Your task to perform on an android device: Add usb-a to usb-b to the cart on bestbuy, then select checkout. Image 0: 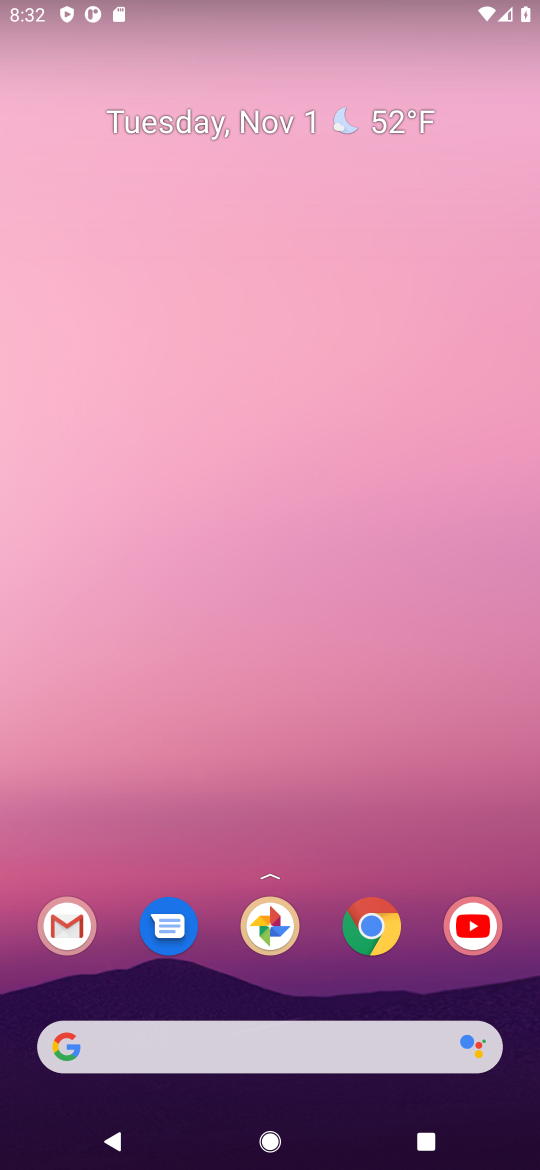
Step 0: click (384, 931)
Your task to perform on an android device: Add usb-a to usb-b to the cart on bestbuy, then select checkout. Image 1: 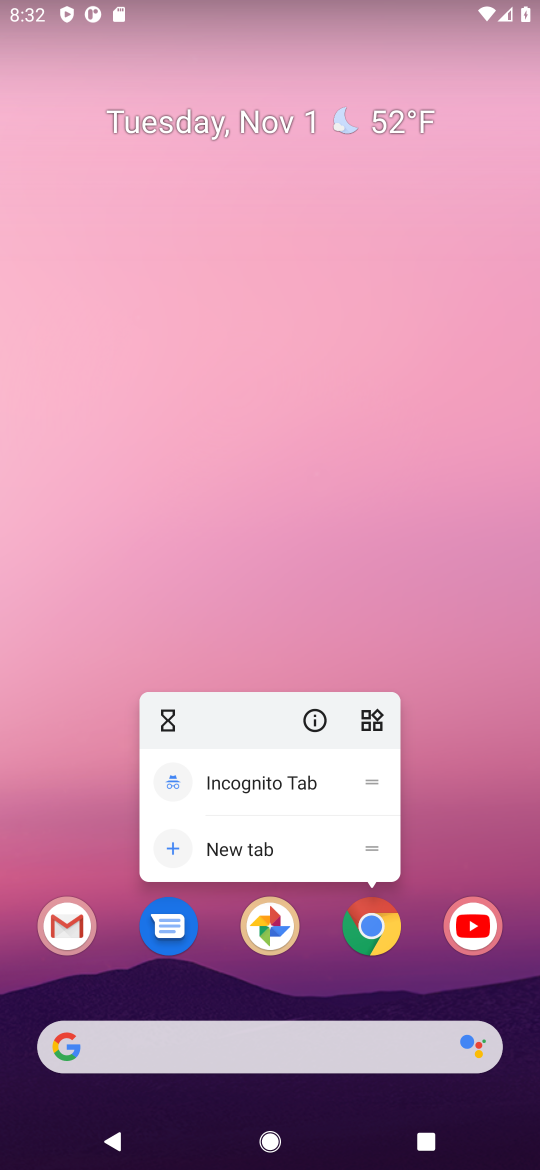
Step 1: click (381, 932)
Your task to perform on an android device: Add usb-a to usb-b to the cart on bestbuy, then select checkout. Image 2: 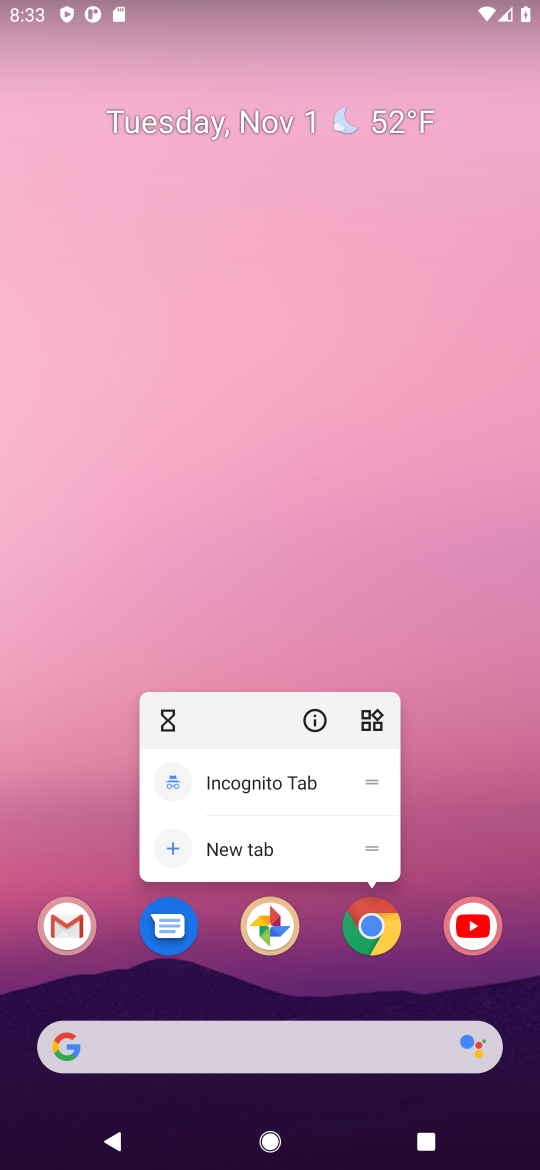
Step 2: click (370, 922)
Your task to perform on an android device: Add usb-a to usb-b to the cart on bestbuy, then select checkout. Image 3: 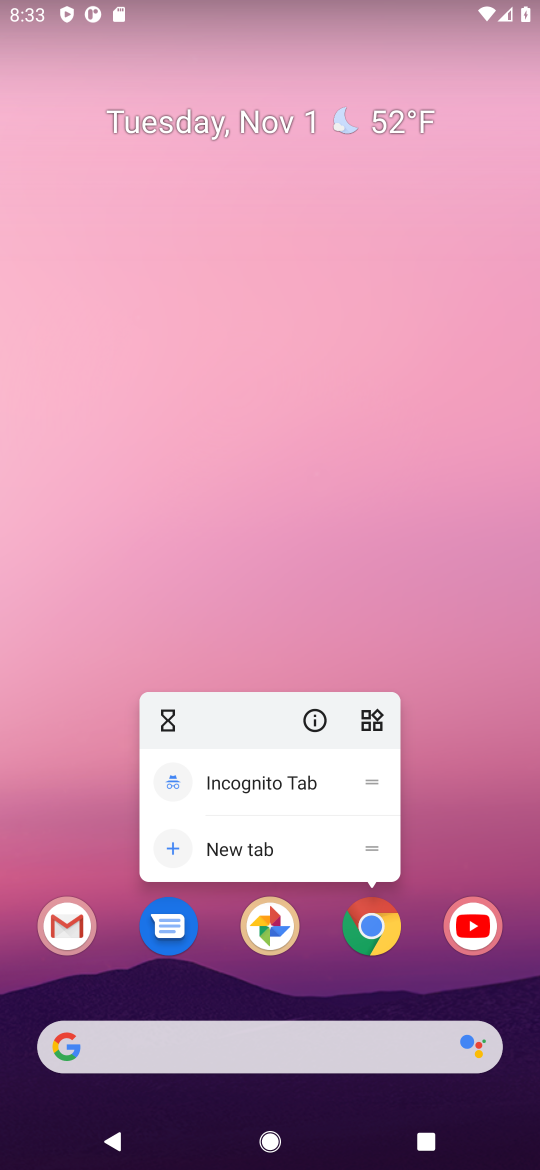
Step 3: click (363, 927)
Your task to perform on an android device: Add usb-a to usb-b to the cart on bestbuy, then select checkout. Image 4: 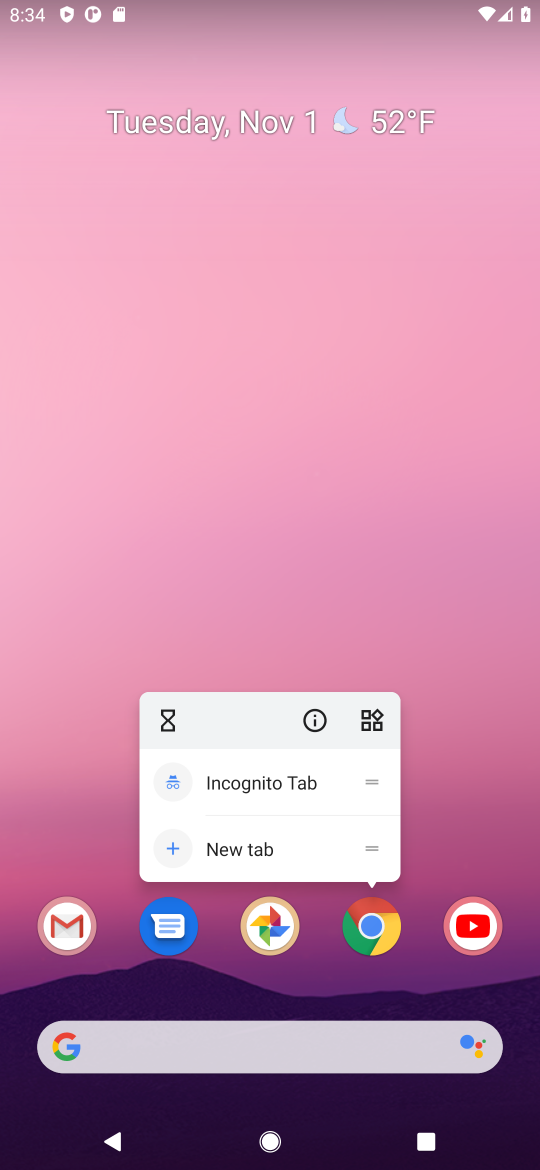
Step 4: click (372, 927)
Your task to perform on an android device: Add usb-a to usb-b to the cart on bestbuy, then select checkout. Image 5: 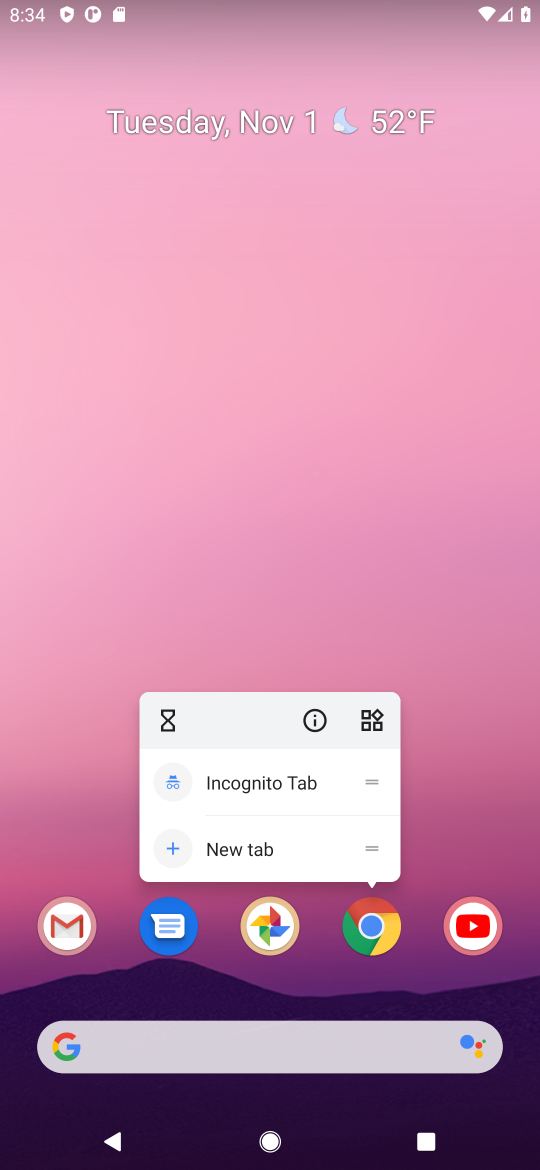
Step 5: click (380, 933)
Your task to perform on an android device: Add usb-a to usb-b to the cart on bestbuy, then select checkout. Image 6: 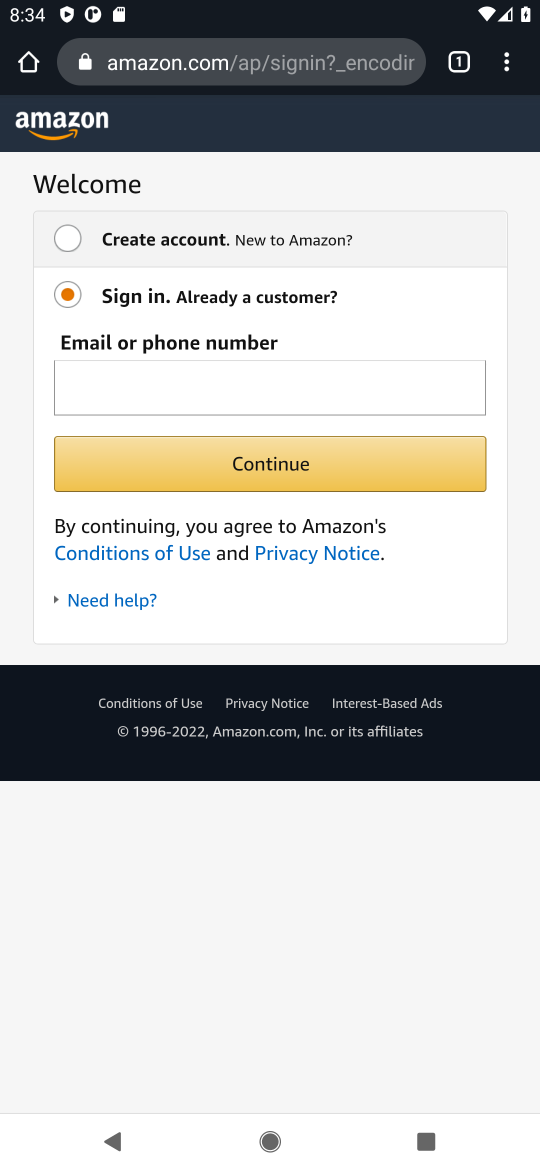
Step 6: click (241, 61)
Your task to perform on an android device: Add usb-a to usb-b to the cart on bestbuy, then select checkout. Image 7: 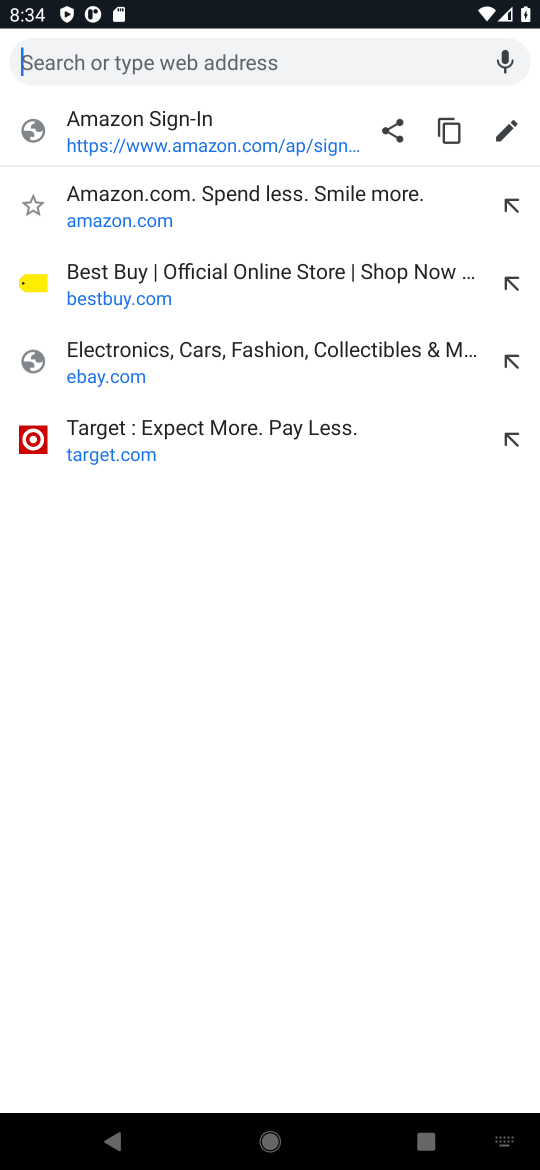
Step 7: click (79, 271)
Your task to perform on an android device: Add usb-a to usb-b to the cart on bestbuy, then select checkout. Image 8: 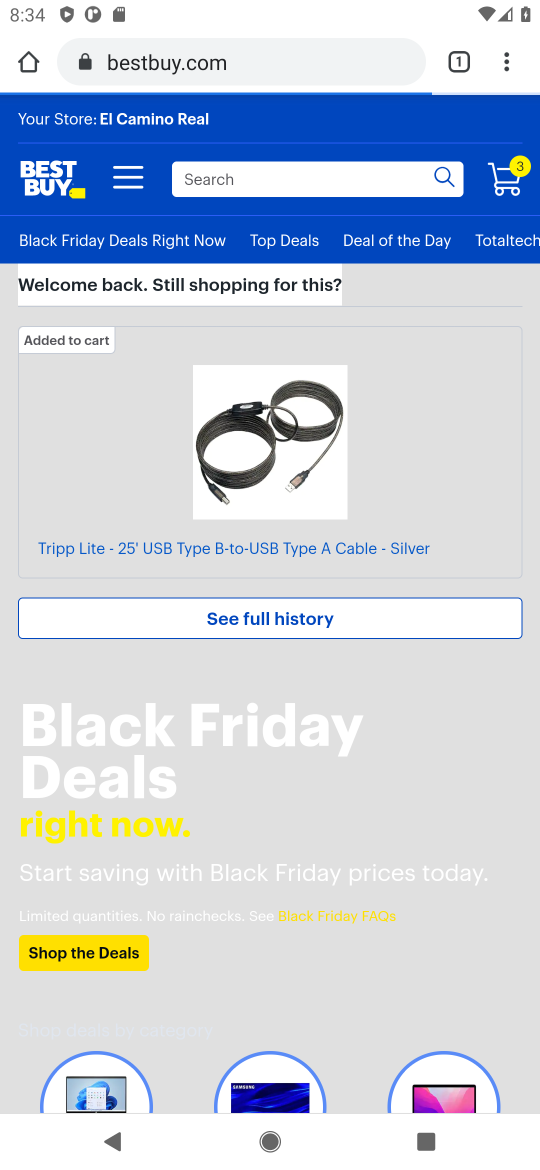
Step 8: click (231, 183)
Your task to perform on an android device: Add usb-a to usb-b to the cart on bestbuy, then select checkout. Image 9: 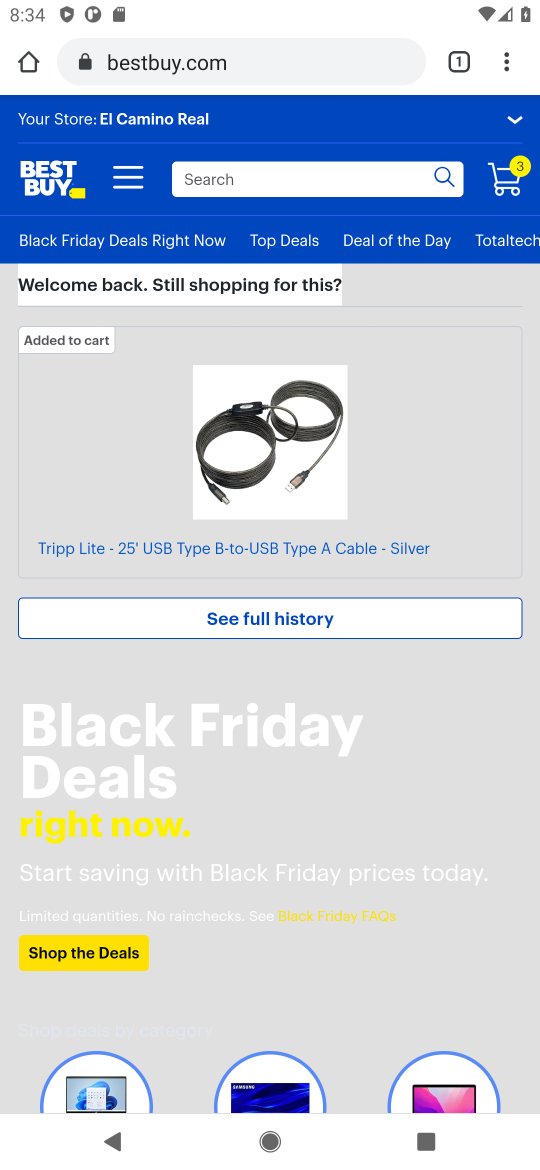
Step 9: type "usb a to usb b "
Your task to perform on an android device: Add usb-a to usb-b to the cart on bestbuy, then select checkout. Image 10: 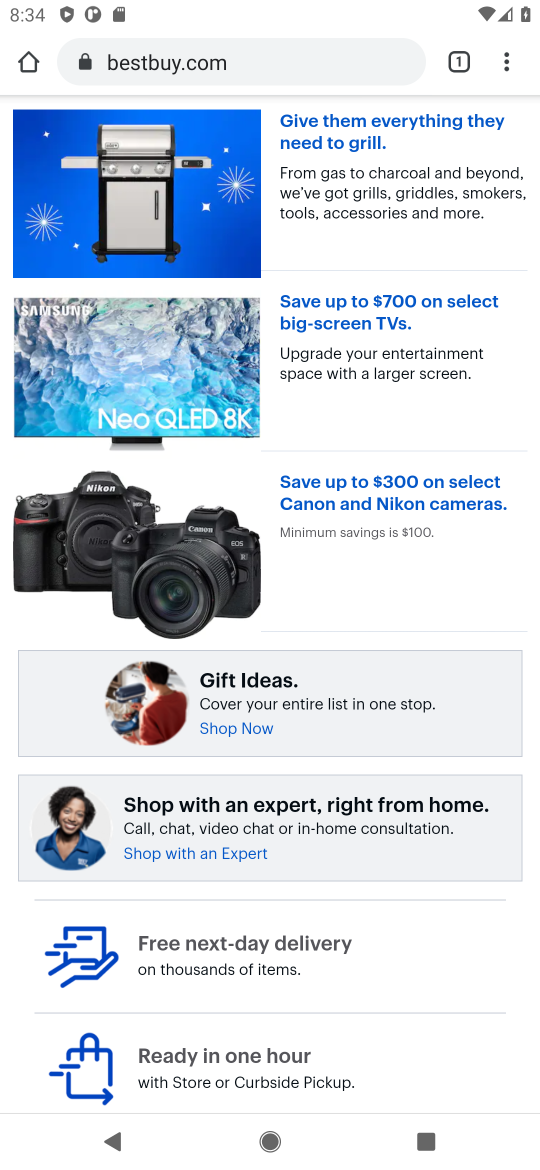
Step 10: drag from (262, 632) to (235, 833)
Your task to perform on an android device: Add usb-a to usb-b to the cart on bestbuy, then select checkout. Image 11: 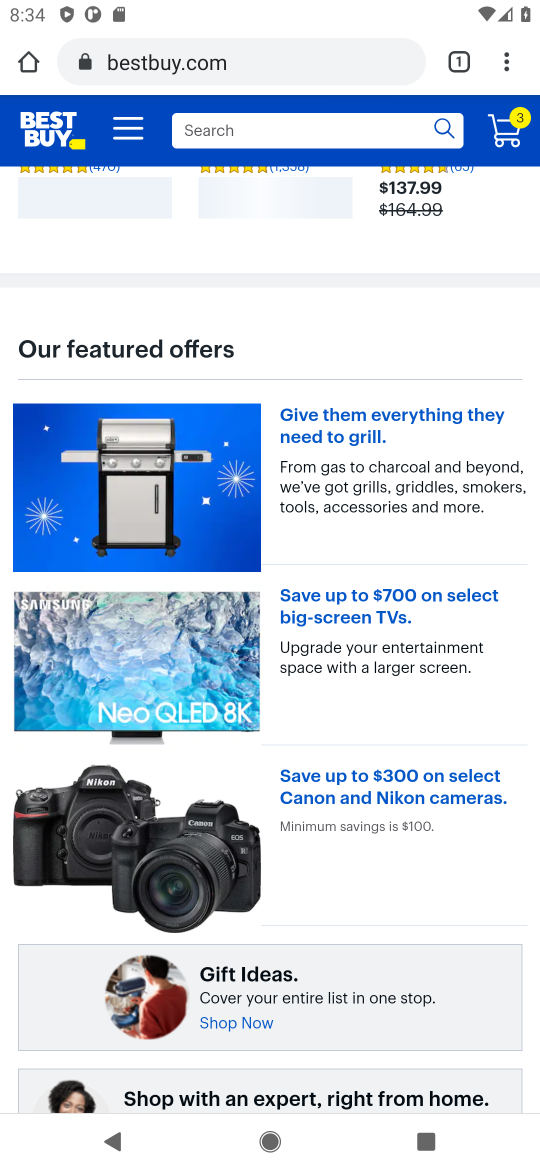
Step 11: click (253, 129)
Your task to perform on an android device: Add usb-a to usb-b to the cart on bestbuy, then select checkout. Image 12: 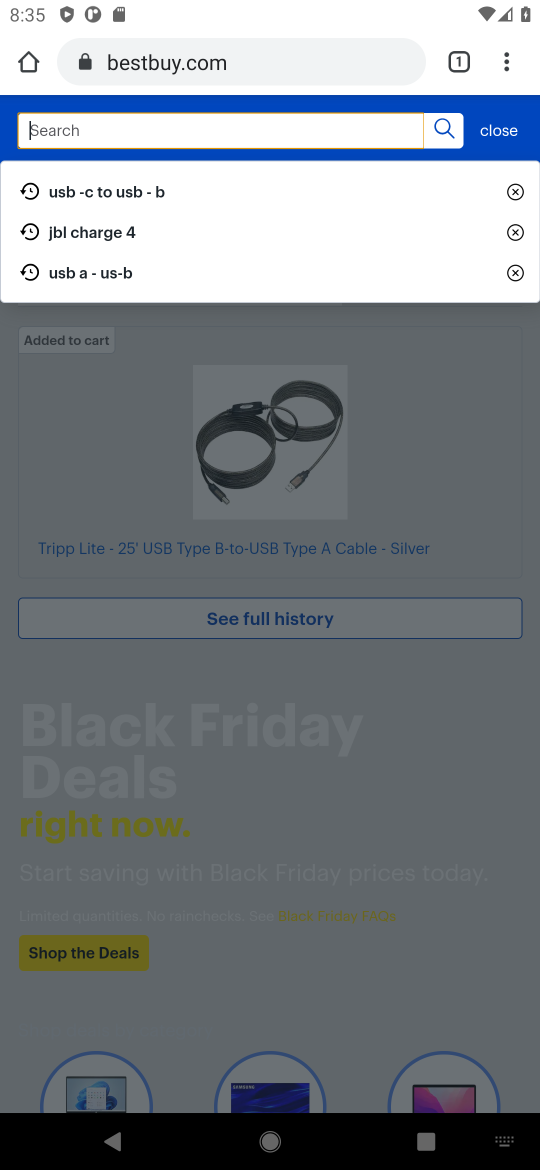
Step 12: type "usb -a to usb -b "
Your task to perform on an android device: Add usb-a to usb-b to the cart on bestbuy, then select checkout. Image 13: 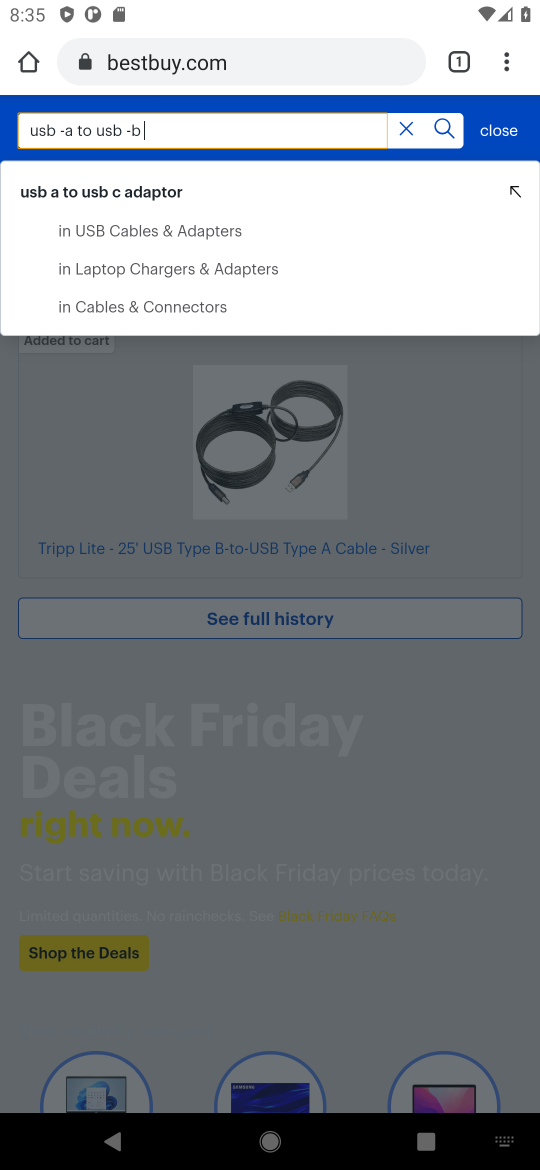
Step 13: type ""
Your task to perform on an android device: Add usb-a to usb-b to the cart on bestbuy, then select checkout. Image 14: 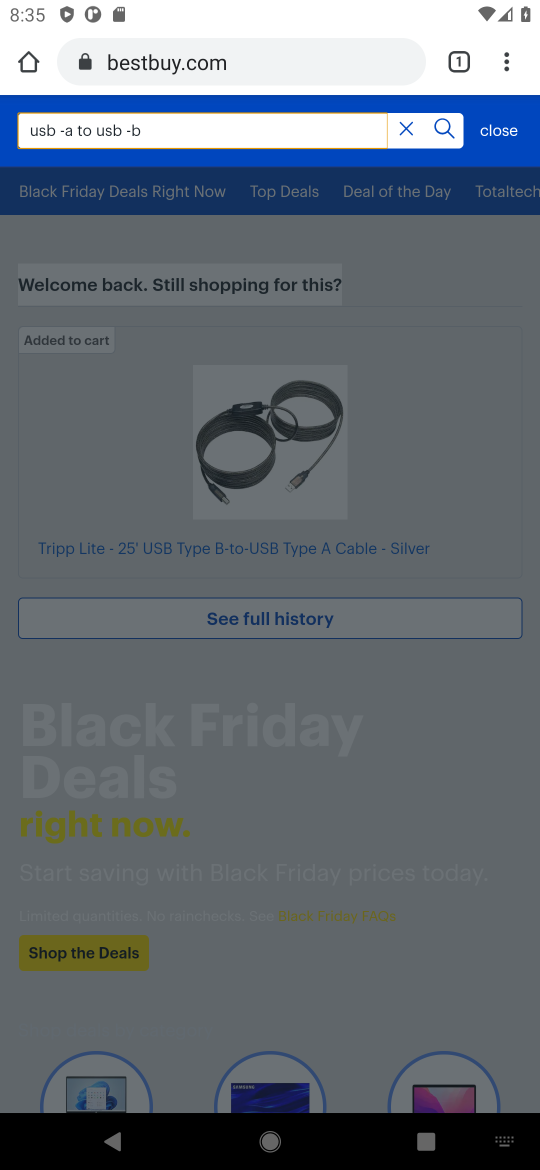
Step 14: click (441, 139)
Your task to perform on an android device: Add usb-a to usb-b to the cart on bestbuy, then select checkout. Image 15: 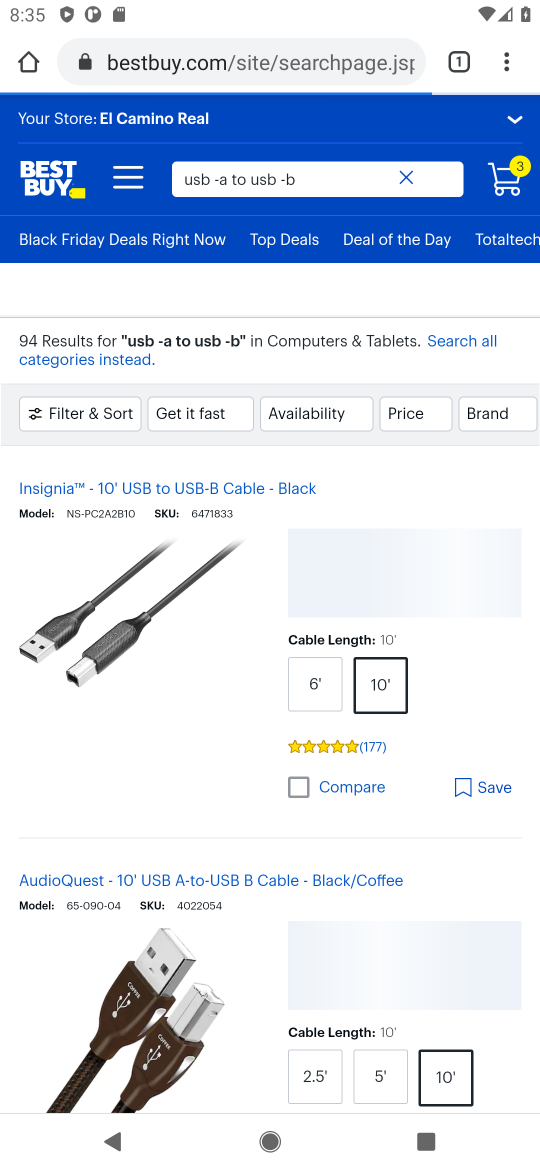
Step 15: drag from (248, 944) to (261, 611)
Your task to perform on an android device: Add usb-a to usb-b to the cart on bestbuy, then select checkout. Image 16: 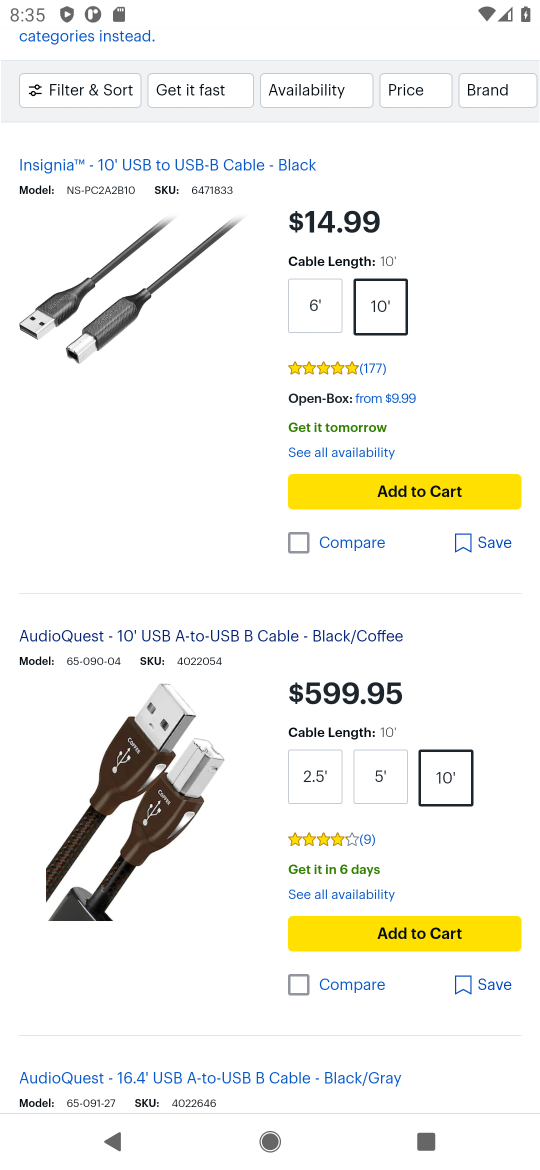
Step 16: click (197, 752)
Your task to perform on an android device: Add usb-a to usb-b to the cart on bestbuy, then select checkout. Image 17: 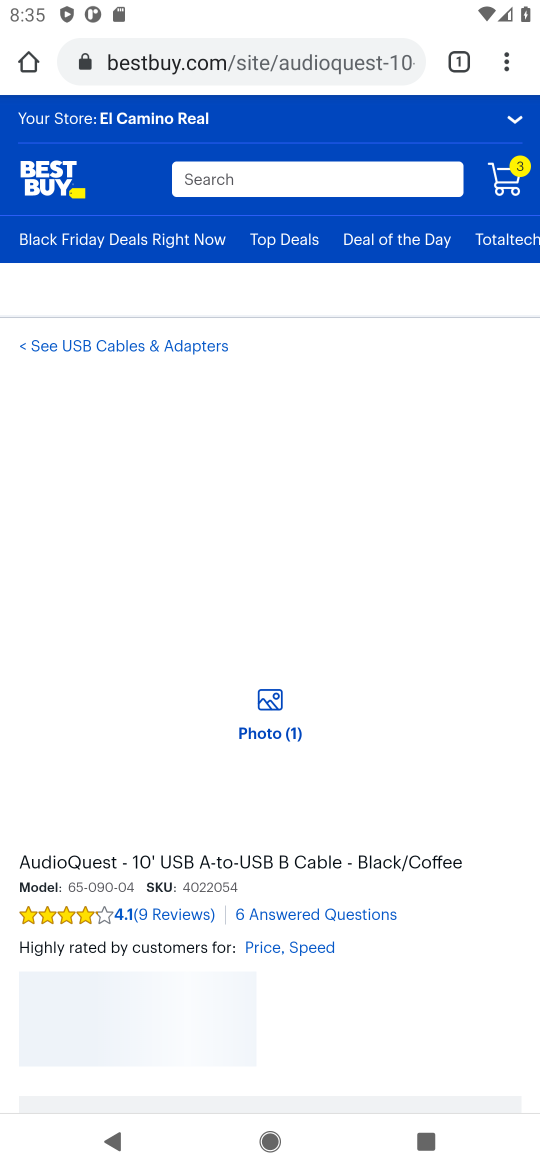
Step 17: drag from (341, 927) to (279, 140)
Your task to perform on an android device: Add usb-a to usb-b to the cart on bestbuy, then select checkout. Image 18: 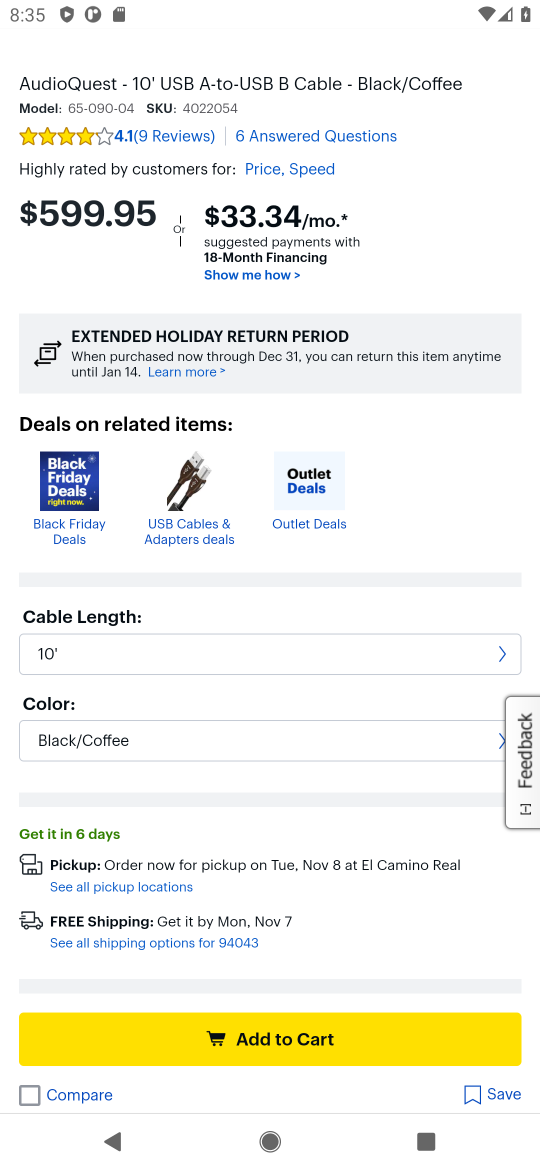
Step 18: click (276, 1038)
Your task to perform on an android device: Add usb-a to usb-b to the cart on bestbuy, then select checkout. Image 19: 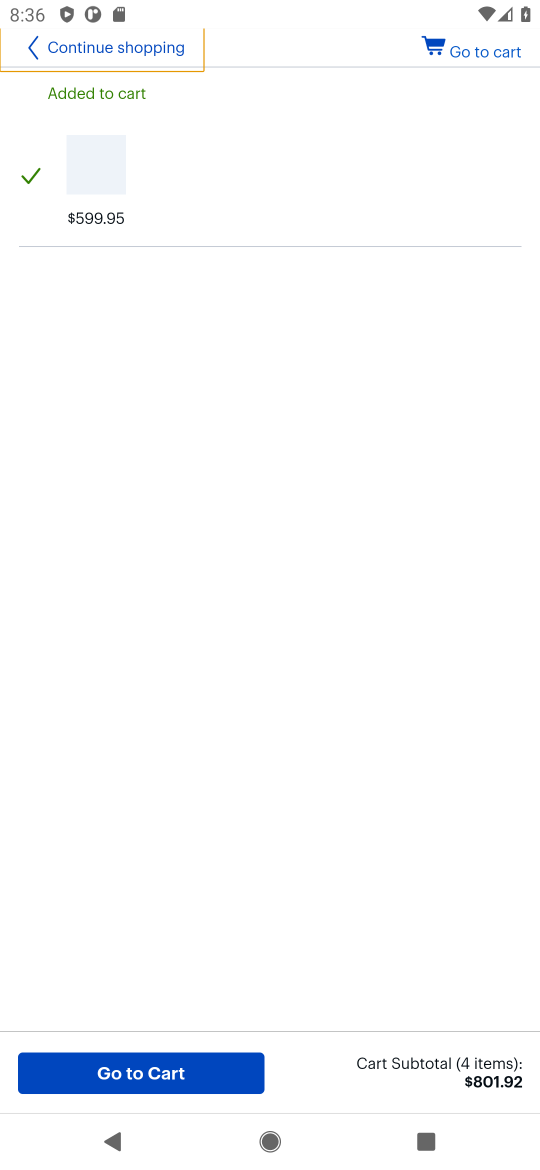
Step 19: task complete